Your task to perform on an android device: change the clock style Image 0: 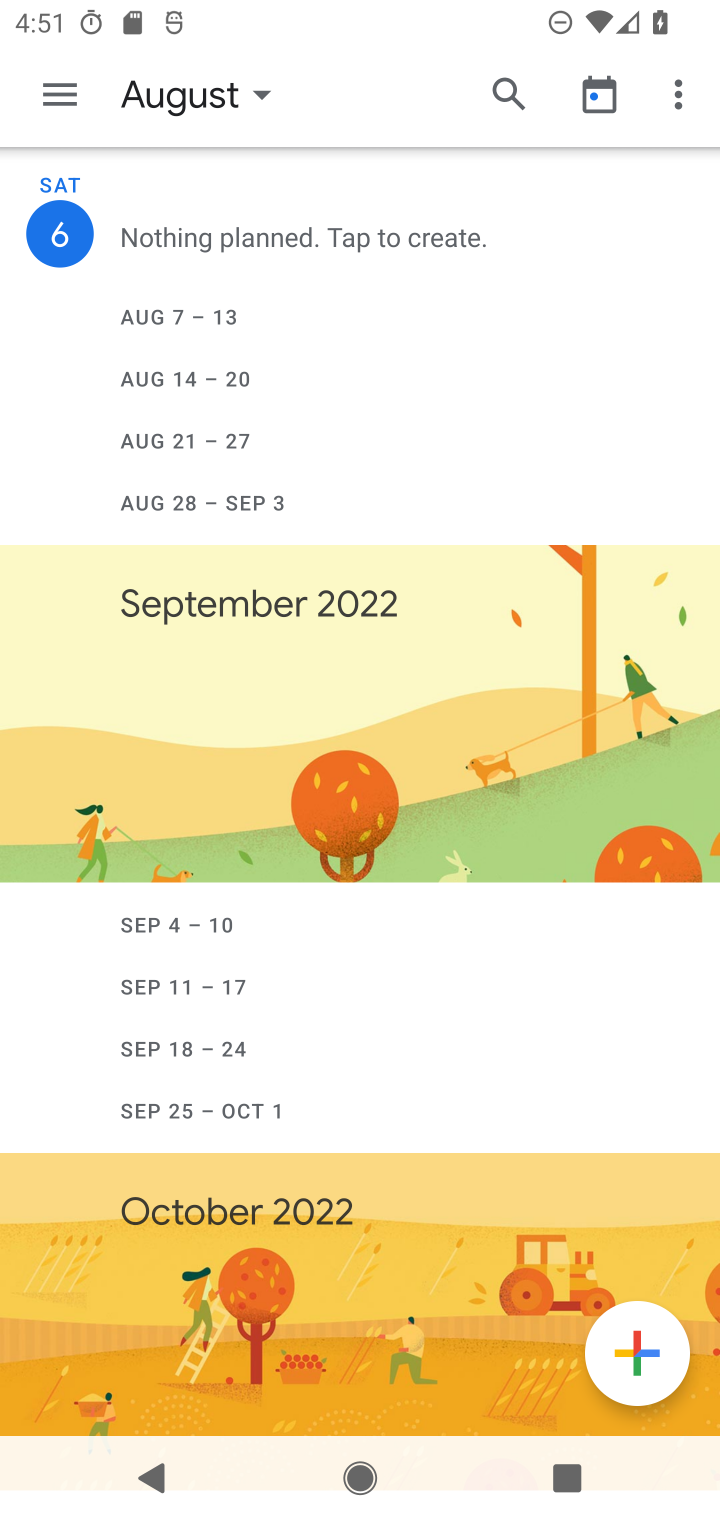
Step 0: press home button
Your task to perform on an android device: change the clock style Image 1: 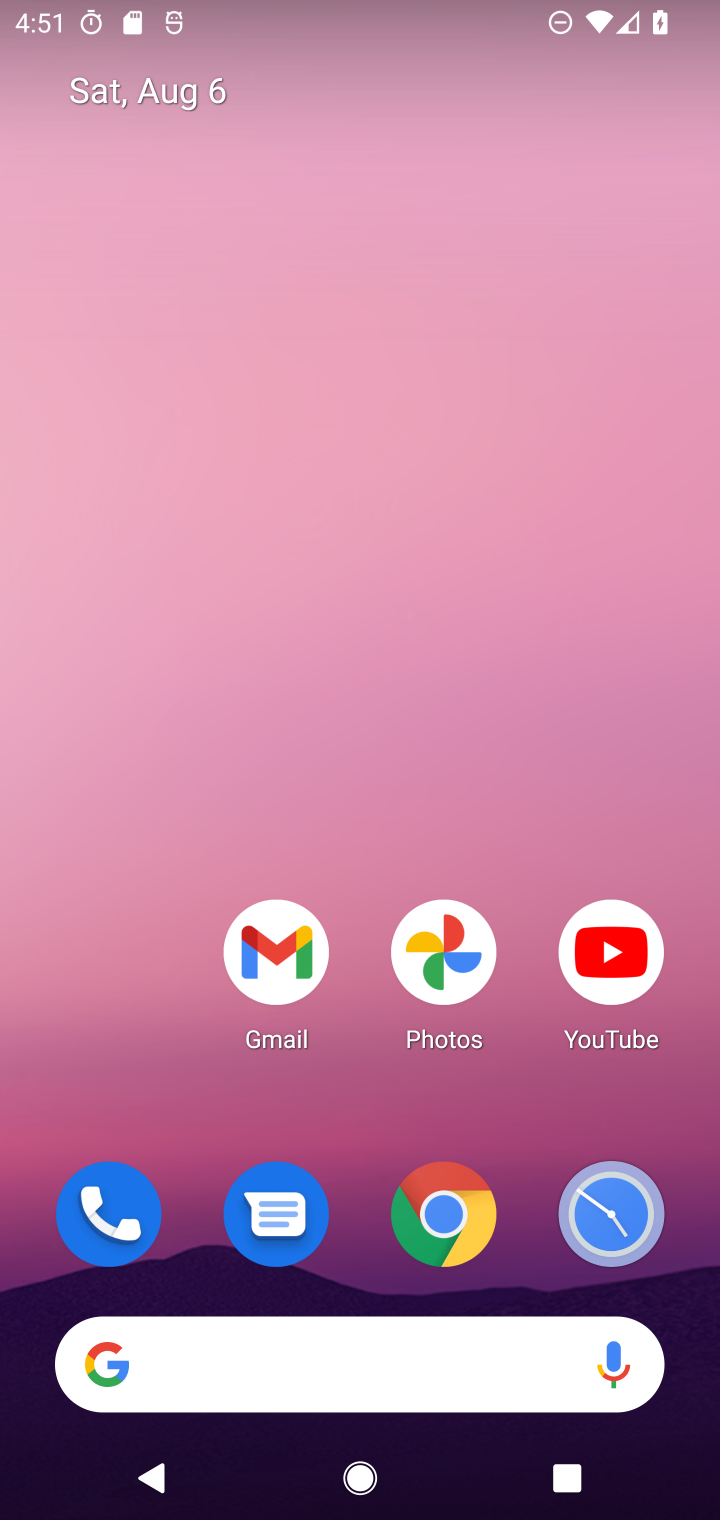
Step 1: click (617, 1240)
Your task to perform on an android device: change the clock style Image 2: 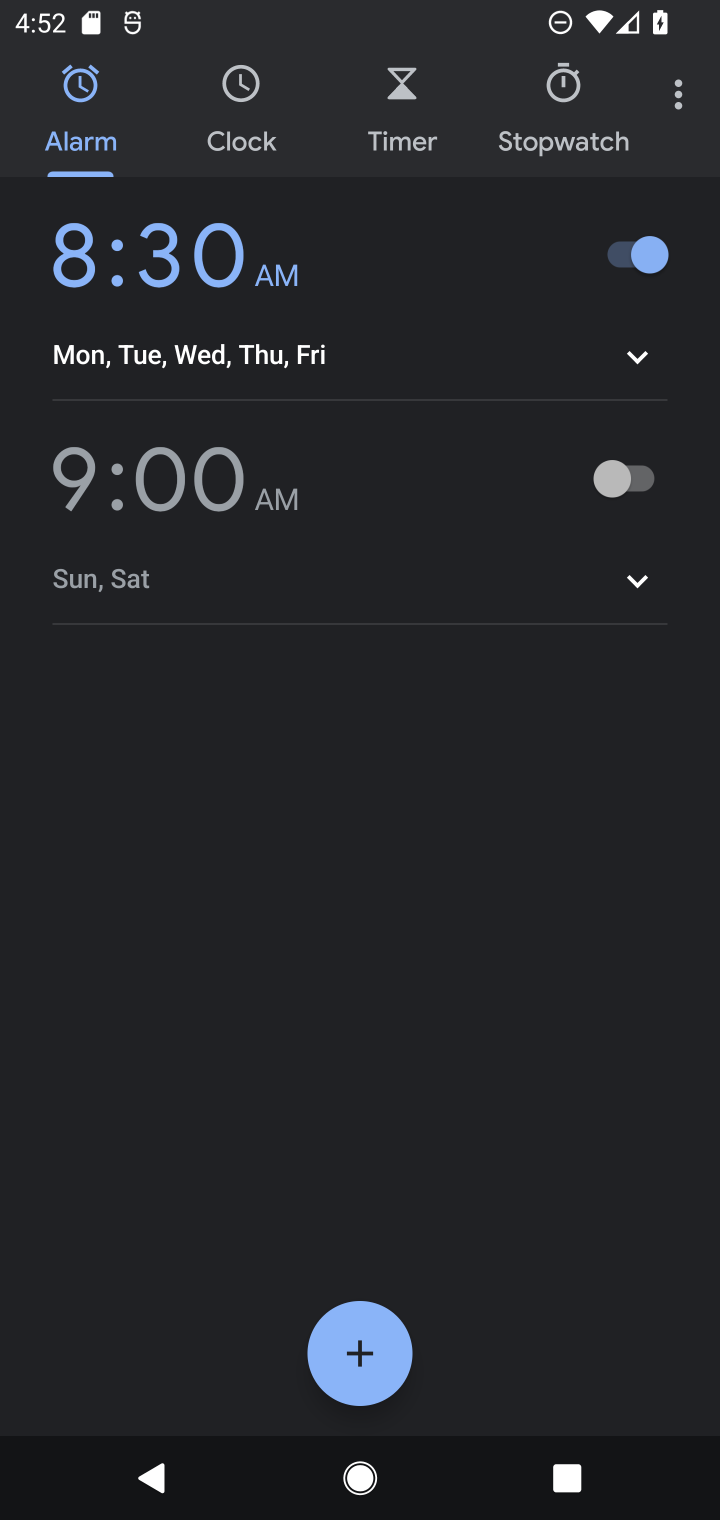
Step 2: click (685, 99)
Your task to perform on an android device: change the clock style Image 3: 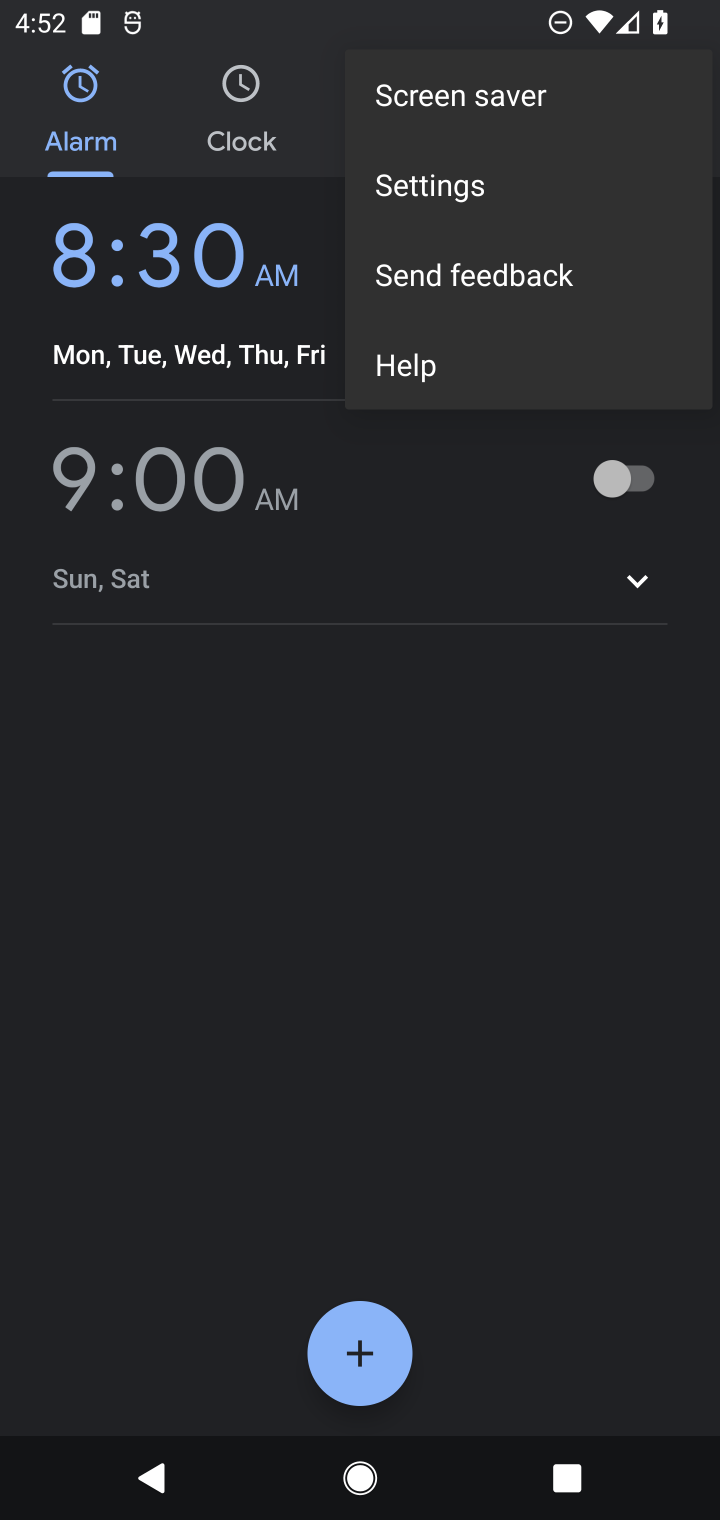
Step 3: click (427, 200)
Your task to perform on an android device: change the clock style Image 4: 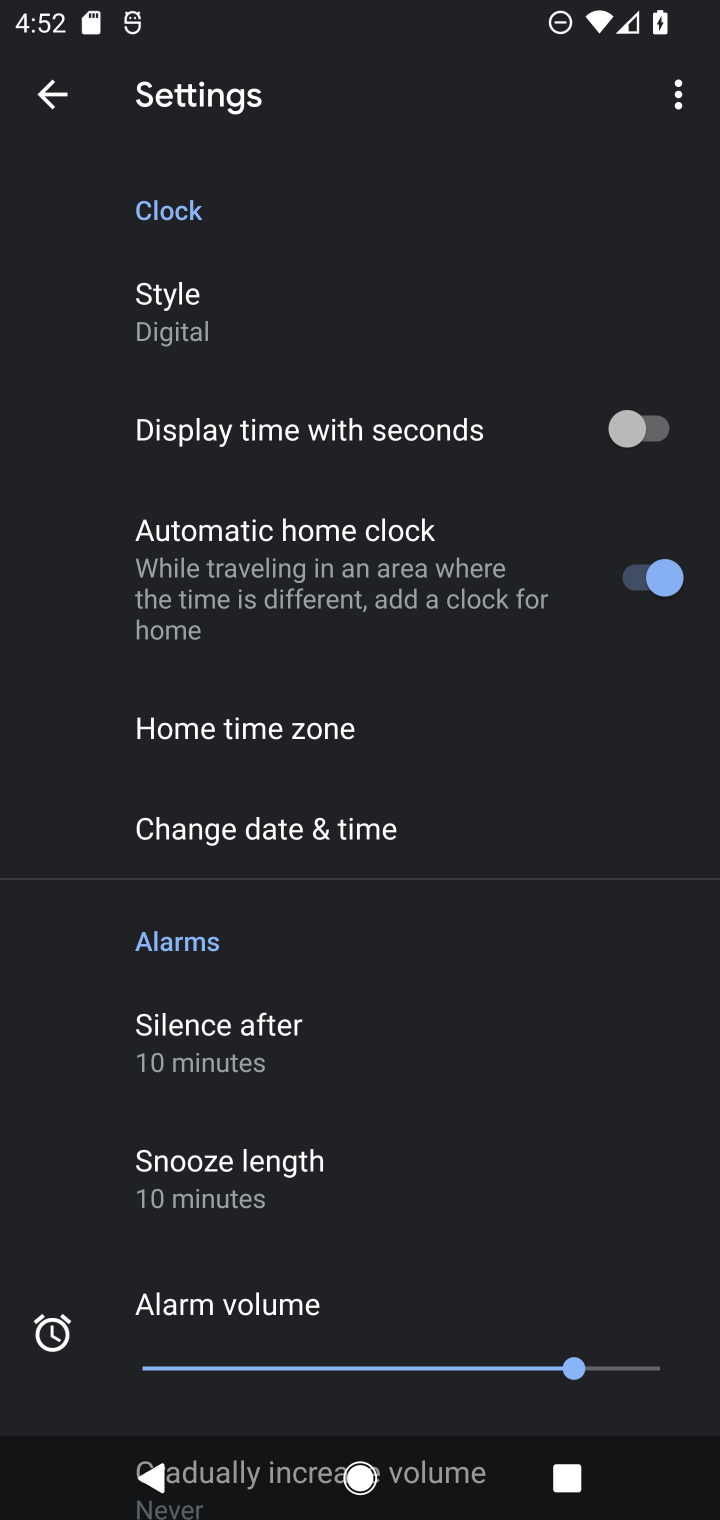
Step 4: click (201, 320)
Your task to perform on an android device: change the clock style Image 5: 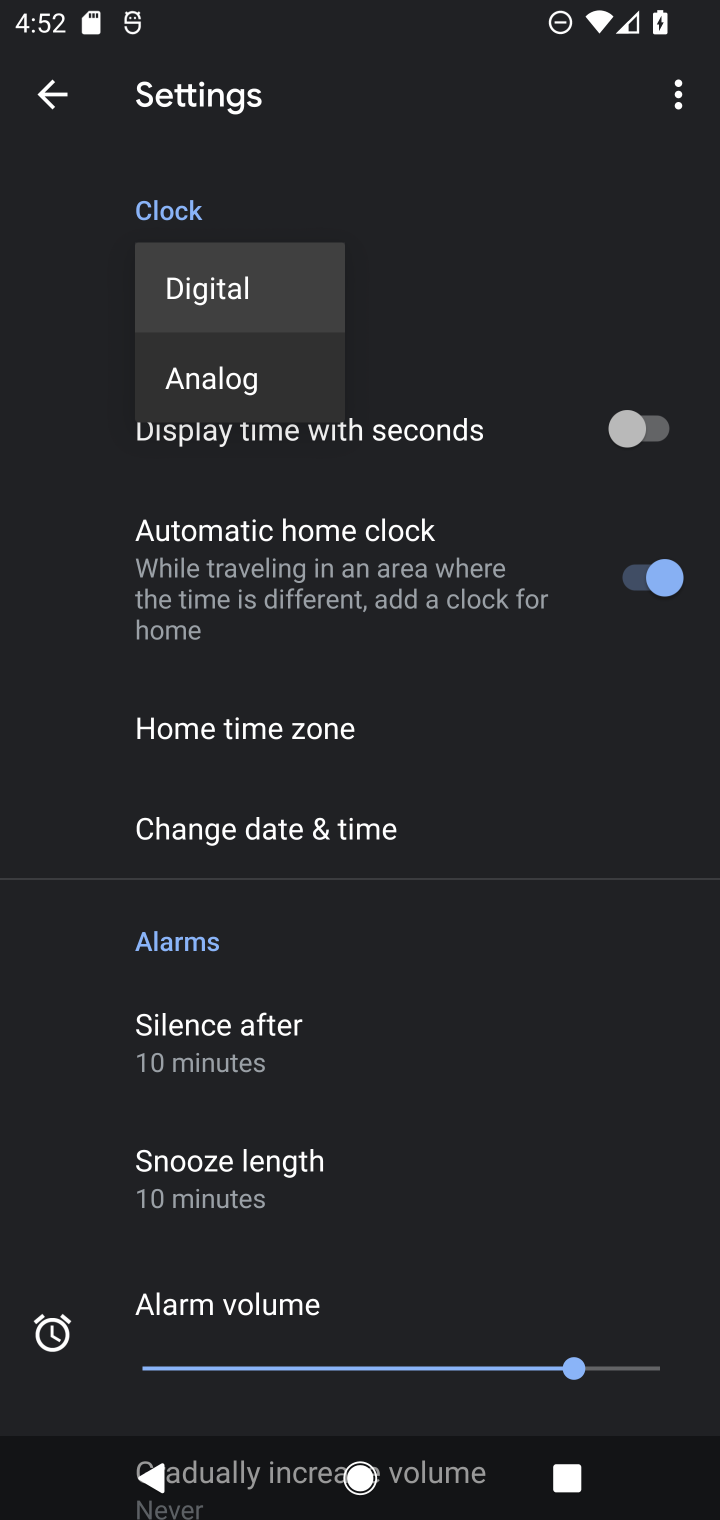
Step 5: click (201, 385)
Your task to perform on an android device: change the clock style Image 6: 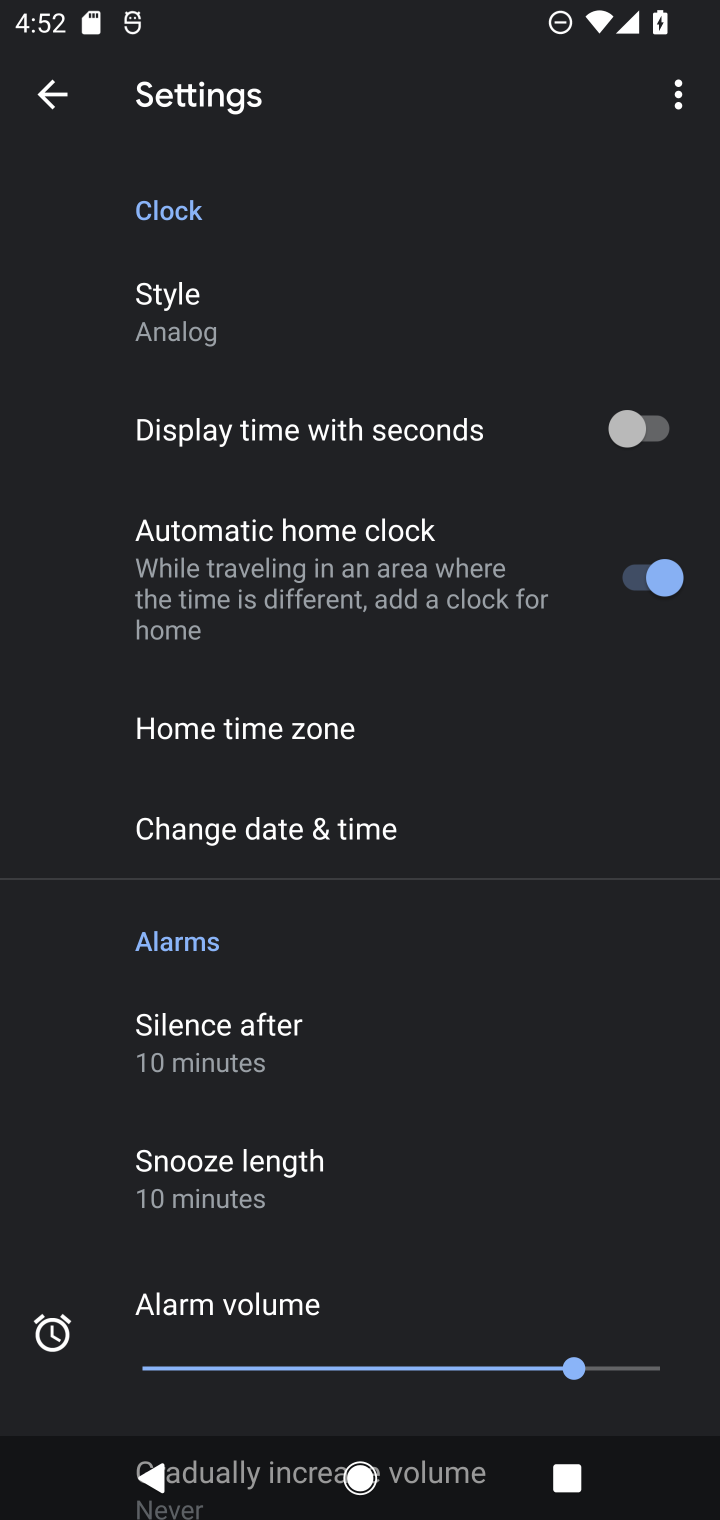
Step 6: task complete